Your task to perform on an android device: toggle improve location accuracy Image 0: 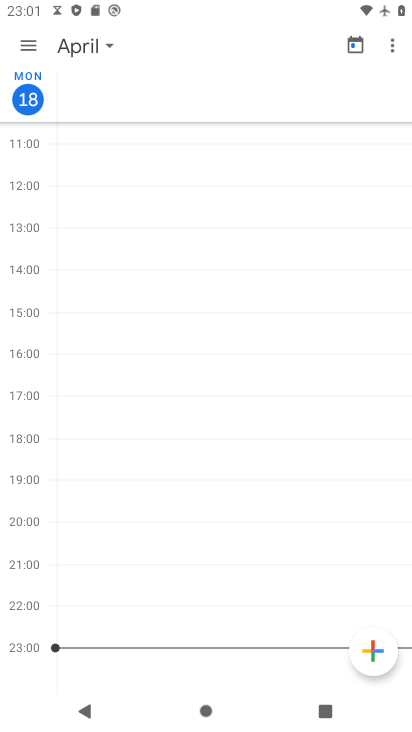
Step 0: press back button
Your task to perform on an android device: toggle improve location accuracy Image 1: 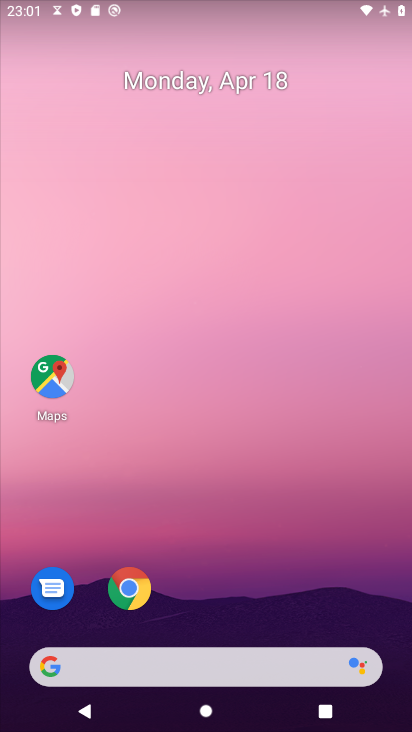
Step 1: drag from (339, 575) to (315, 68)
Your task to perform on an android device: toggle improve location accuracy Image 2: 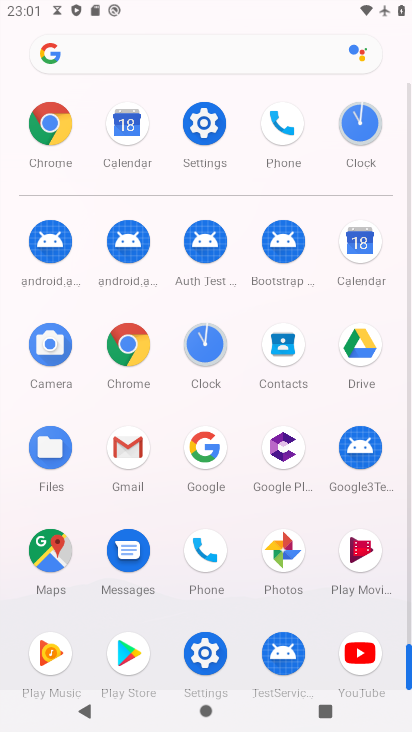
Step 2: drag from (6, 564) to (20, 300)
Your task to perform on an android device: toggle improve location accuracy Image 3: 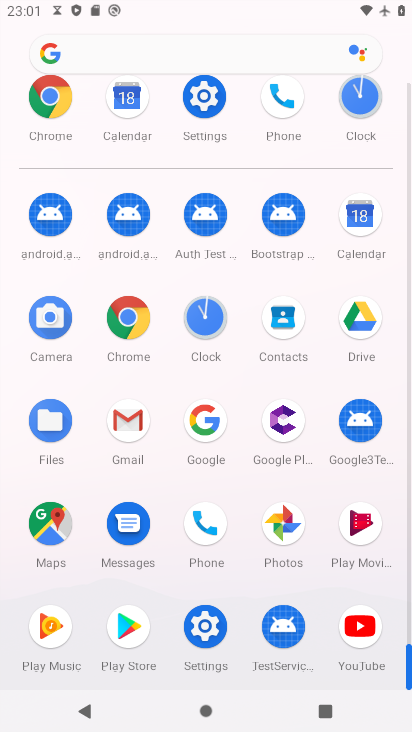
Step 3: click (203, 629)
Your task to perform on an android device: toggle improve location accuracy Image 4: 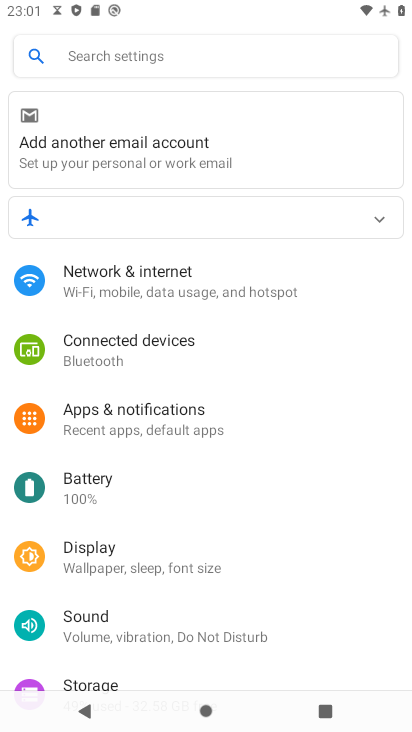
Step 4: drag from (252, 608) to (283, 212)
Your task to perform on an android device: toggle improve location accuracy Image 5: 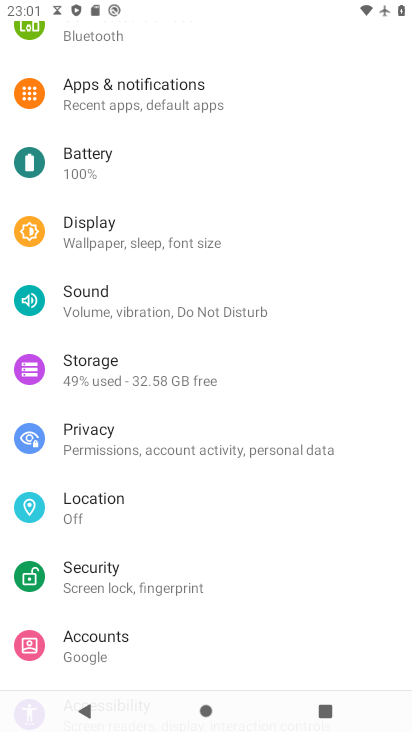
Step 5: click (116, 510)
Your task to perform on an android device: toggle improve location accuracy Image 6: 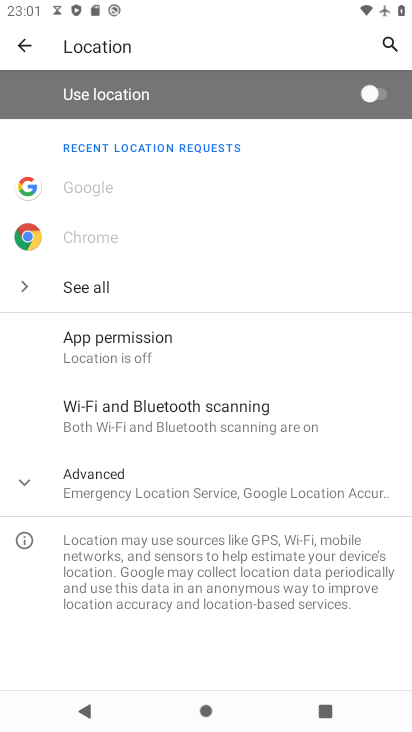
Step 6: click (47, 484)
Your task to perform on an android device: toggle improve location accuracy Image 7: 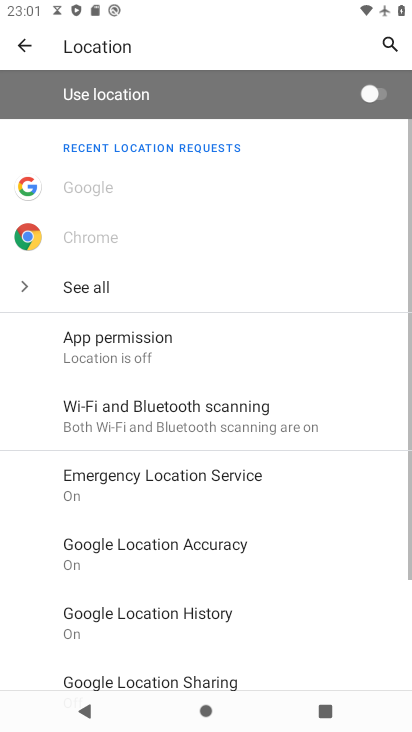
Step 7: drag from (287, 545) to (316, 207)
Your task to perform on an android device: toggle improve location accuracy Image 8: 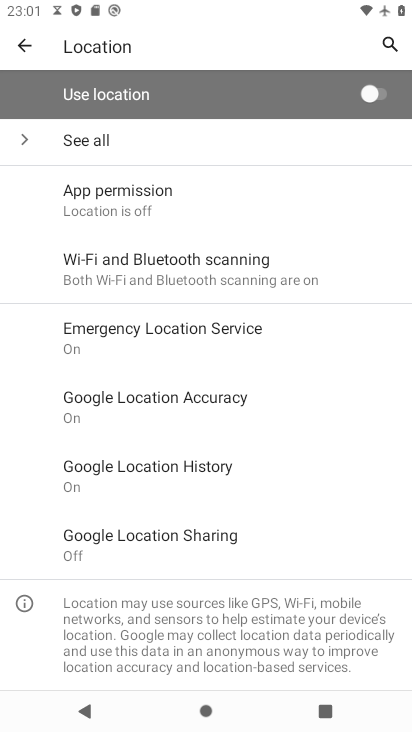
Step 8: click (175, 393)
Your task to perform on an android device: toggle improve location accuracy Image 9: 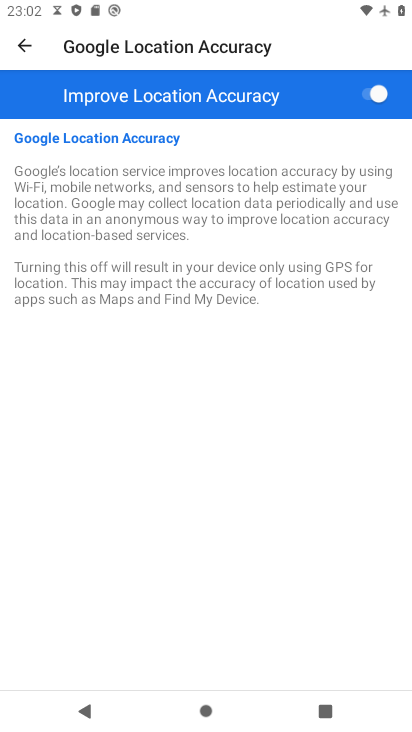
Step 9: click (370, 92)
Your task to perform on an android device: toggle improve location accuracy Image 10: 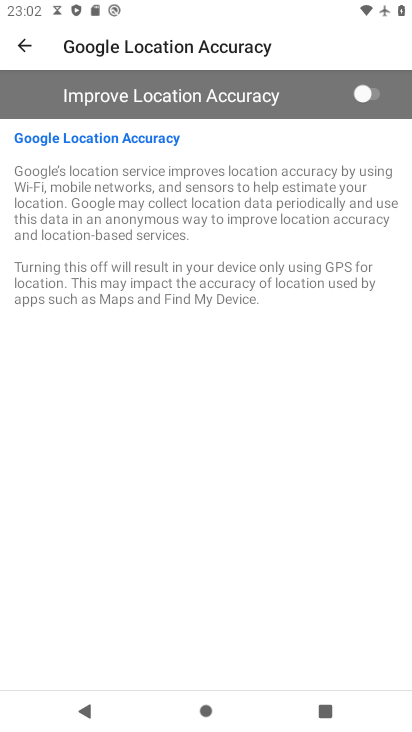
Step 10: task complete